Your task to perform on an android device: find photos in the google photos app Image 0: 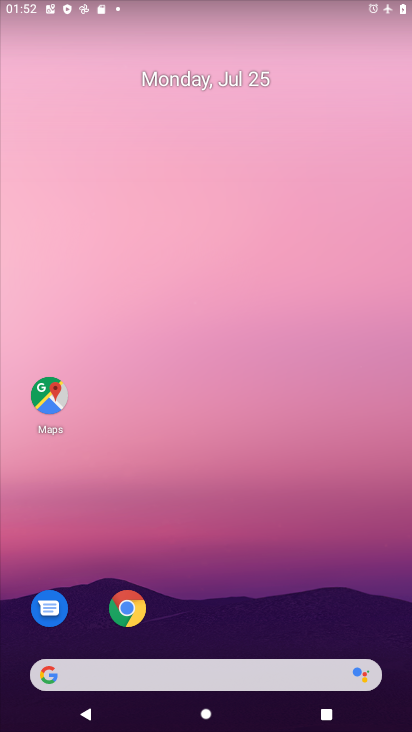
Step 0: drag from (197, 660) to (141, 21)
Your task to perform on an android device: find photos in the google photos app Image 1: 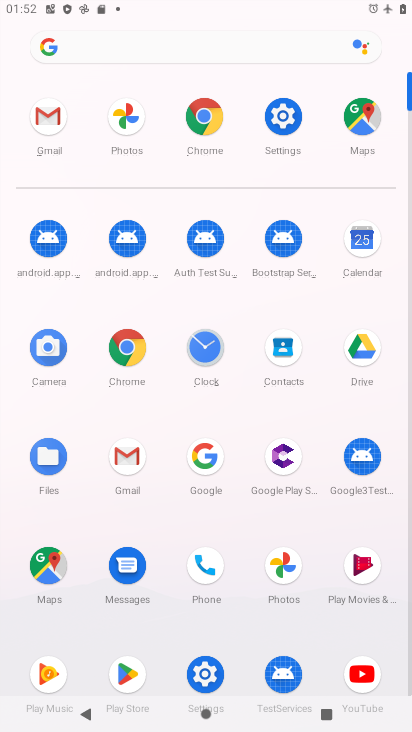
Step 1: click (285, 574)
Your task to perform on an android device: find photos in the google photos app Image 2: 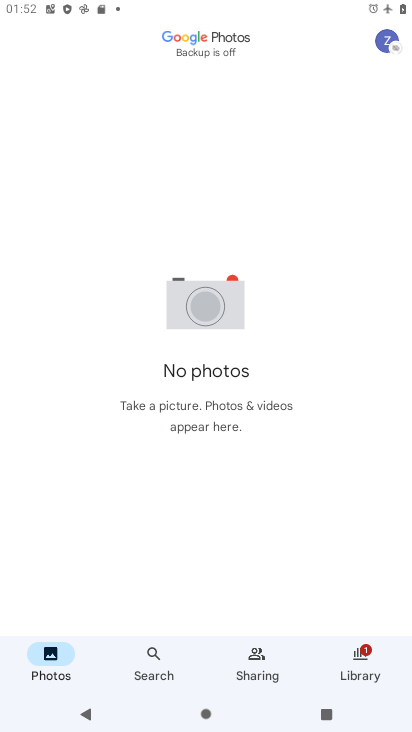
Step 2: task complete